Your task to perform on an android device: How do I get to the nearest electronics store? Image 0: 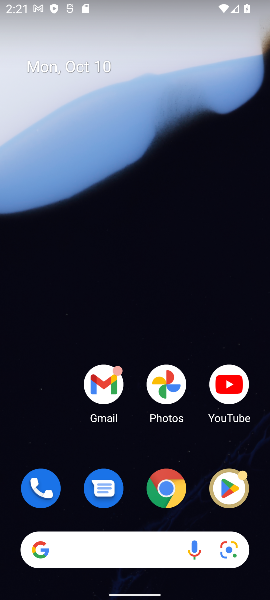
Step 0: click (115, 542)
Your task to perform on an android device: How do I get to the nearest electronics store? Image 1: 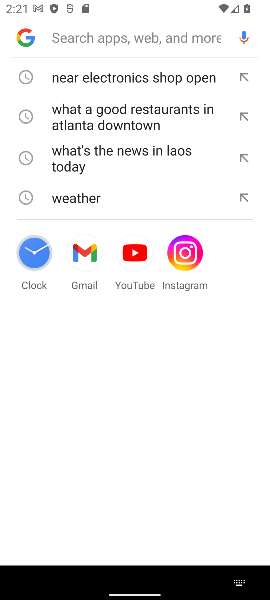
Step 1: click (112, 34)
Your task to perform on an android device: How do I get to the nearest electronics store? Image 2: 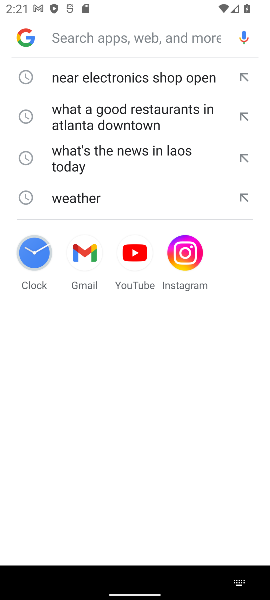
Step 2: type "How do I get to the nearest electronics store"
Your task to perform on an android device: How do I get to the nearest electronics store? Image 3: 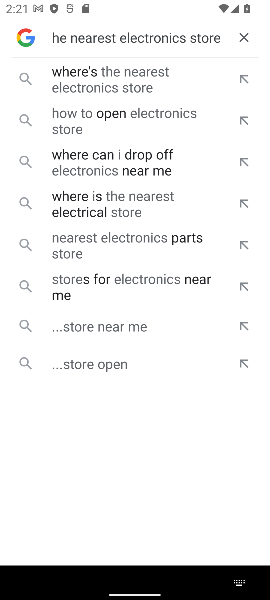
Step 3: click (122, 86)
Your task to perform on an android device: How do I get to the nearest electronics store? Image 4: 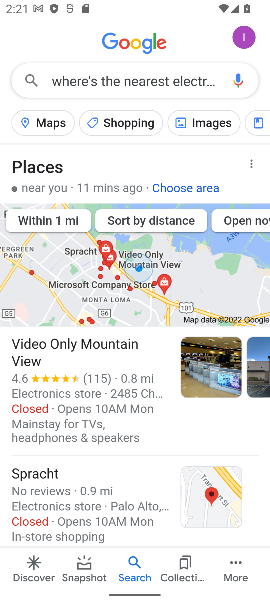
Step 4: task complete